Your task to perform on an android device: Check the news Image 0: 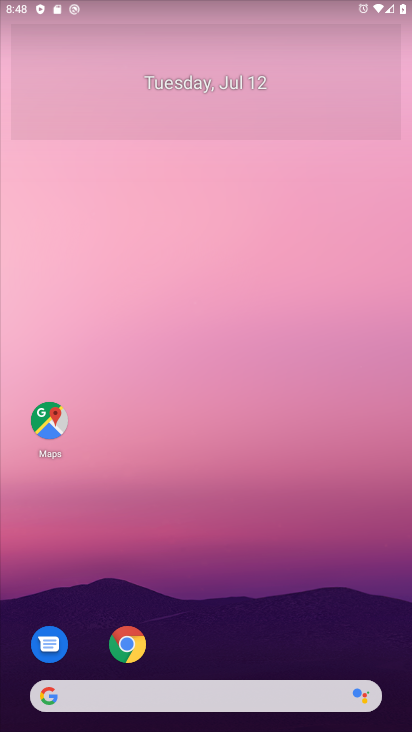
Step 0: click (97, 690)
Your task to perform on an android device: Check the news Image 1: 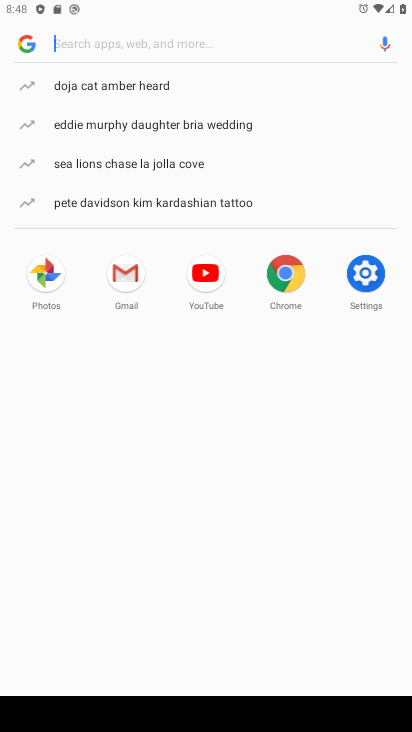
Step 1: type "Check the news"
Your task to perform on an android device: Check the news Image 2: 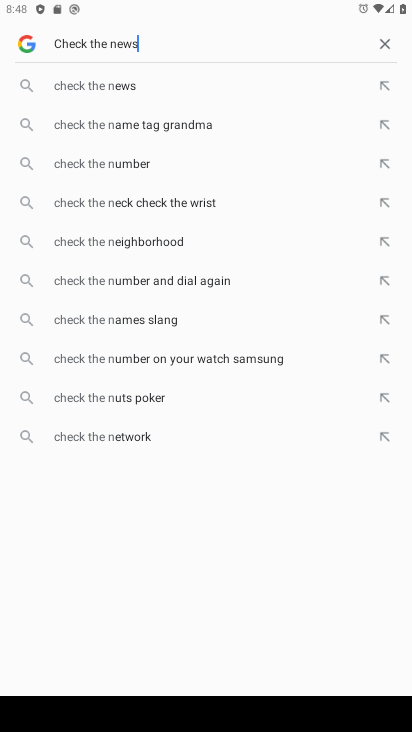
Step 2: type ""
Your task to perform on an android device: Check the news Image 3: 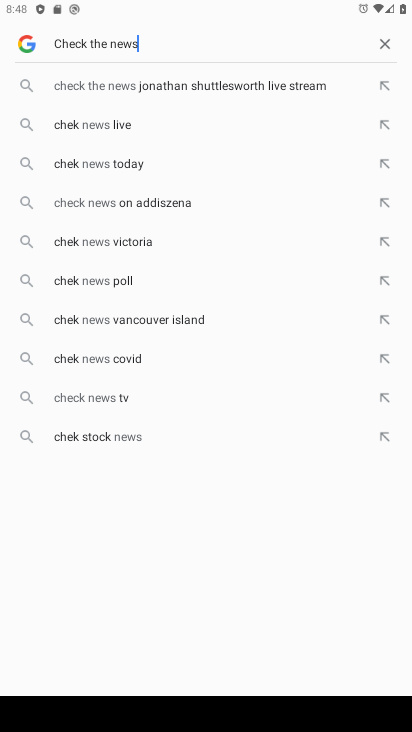
Step 3: type ""
Your task to perform on an android device: Check the news Image 4: 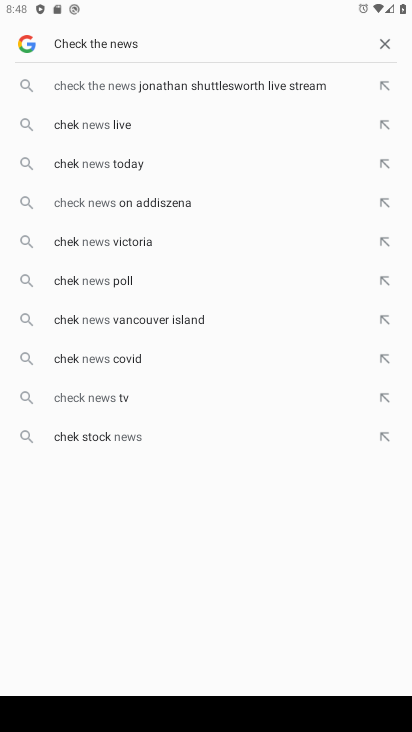
Step 4: type ""
Your task to perform on an android device: Check the news Image 5: 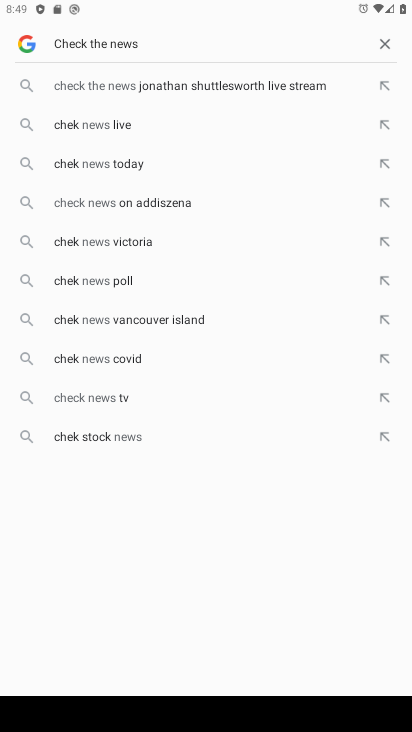
Step 5: task complete